Your task to perform on an android device: set the stopwatch Image 0: 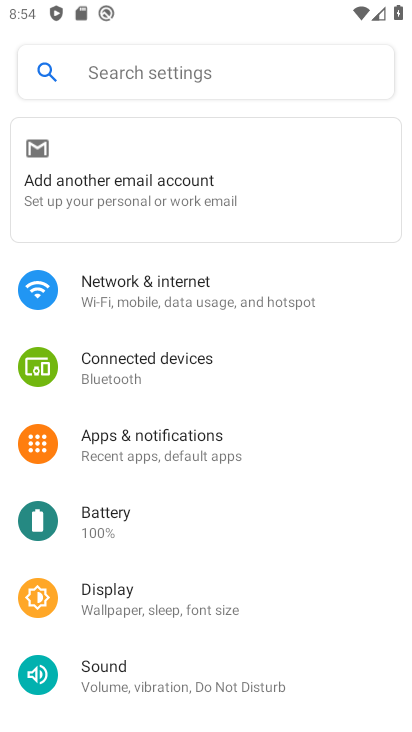
Step 0: press home button
Your task to perform on an android device: set the stopwatch Image 1: 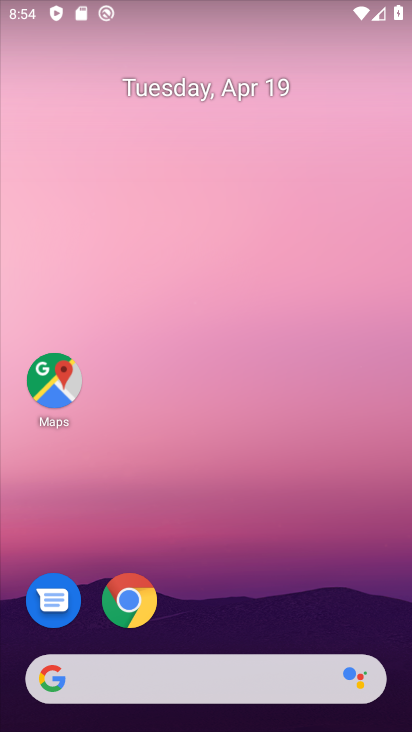
Step 1: drag from (214, 551) to (263, 40)
Your task to perform on an android device: set the stopwatch Image 2: 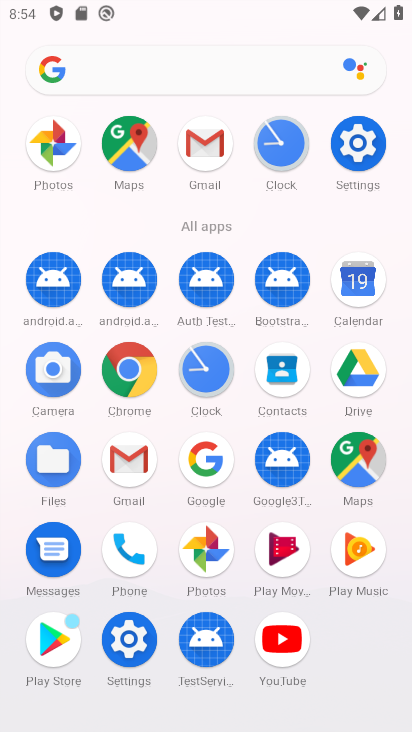
Step 2: click (260, 154)
Your task to perform on an android device: set the stopwatch Image 3: 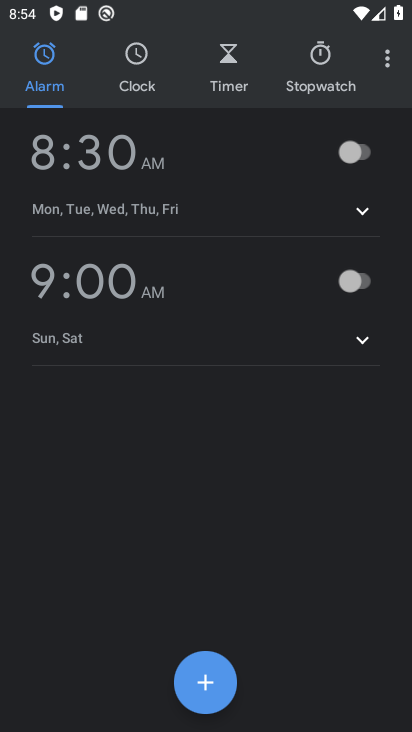
Step 3: click (326, 77)
Your task to perform on an android device: set the stopwatch Image 4: 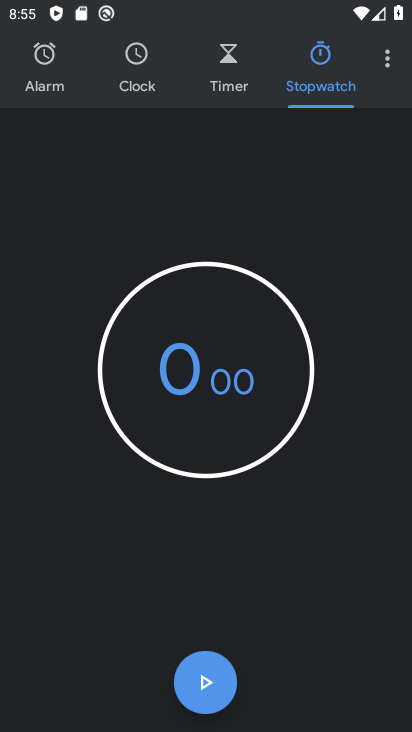
Step 4: click (204, 662)
Your task to perform on an android device: set the stopwatch Image 5: 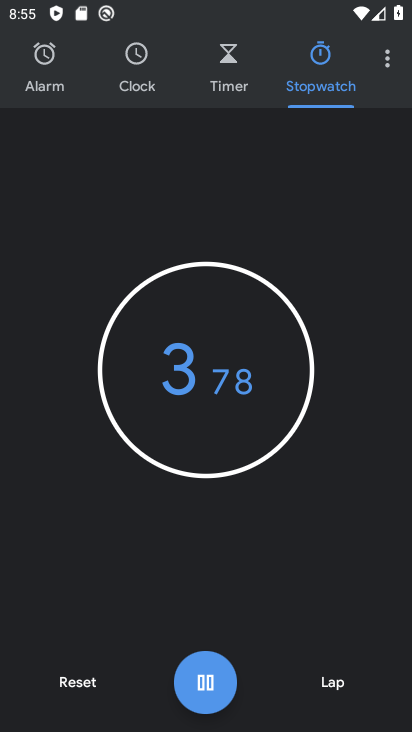
Step 5: task complete